Your task to perform on an android device: Clear the cart on amazon. Search for macbook pro 13 inch on amazon, select the first entry, and add it to the cart. Image 0: 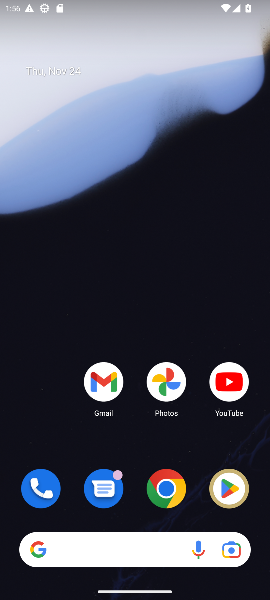
Step 0: click (161, 499)
Your task to perform on an android device: Clear the cart on amazon. Search for macbook pro 13 inch on amazon, select the first entry, and add it to the cart. Image 1: 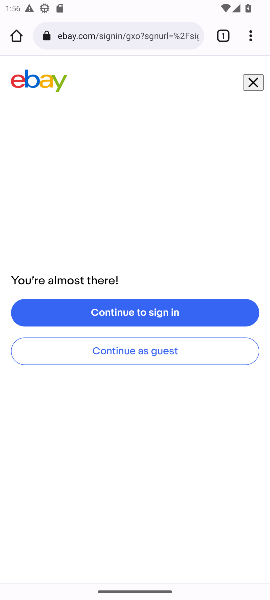
Step 1: click (119, 34)
Your task to perform on an android device: Clear the cart on amazon. Search for macbook pro 13 inch on amazon, select the first entry, and add it to the cart. Image 2: 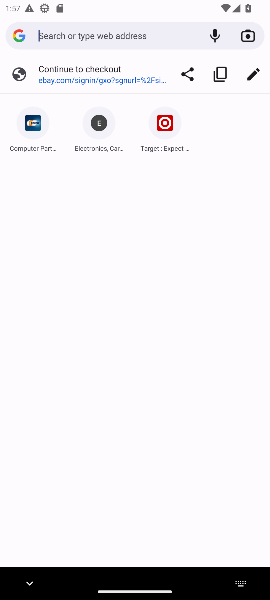
Step 2: type "amazon.com"
Your task to perform on an android device: Clear the cart on amazon. Search for macbook pro 13 inch on amazon, select the first entry, and add it to the cart. Image 3: 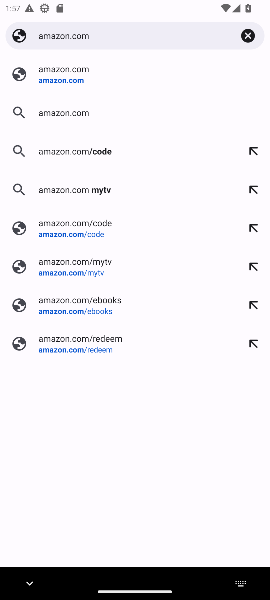
Step 3: click (61, 81)
Your task to perform on an android device: Clear the cart on amazon. Search for macbook pro 13 inch on amazon, select the first entry, and add it to the cart. Image 4: 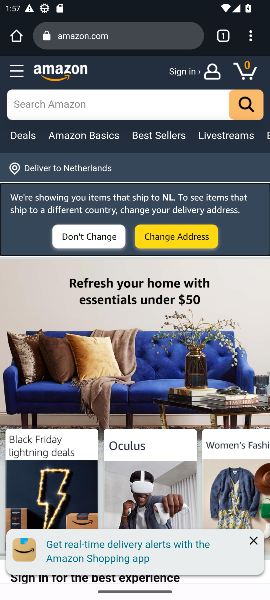
Step 4: click (247, 71)
Your task to perform on an android device: Clear the cart on amazon. Search for macbook pro 13 inch on amazon, select the first entry, and add it to the cart. Image 5: 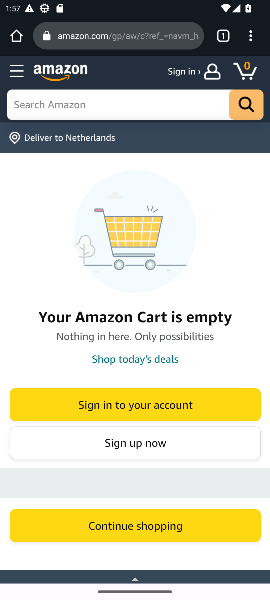
Step 5: click (120, 103)
Your task to perform on an android device: Clear the cart on amazon. Search for macbook pro 13 inch on amazon, select the first entry, and add it to the cart. Image 6: 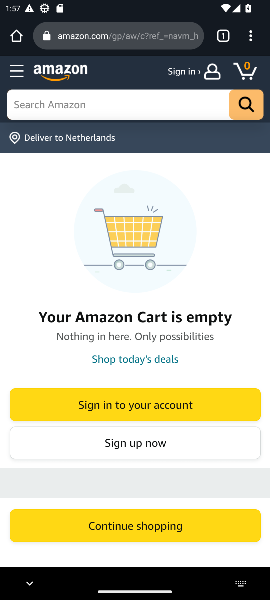
Step 6: type "macbook pro 13 inch"
Your task to perform on an android device: Clear the cart on amazon. Search for macbook pro 13 inch on amazon, select the first entry, and add it to the cart. Image 7: 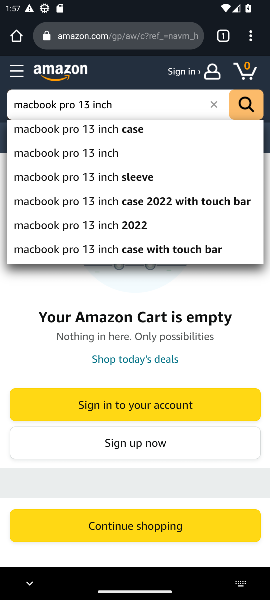
Step 7: click (81, 161)
Your task to perform on an android device: Clear the cart on amazon. Search for macbook pro 13 inch on amazon, select the first entry, and add it to the cart. Image 8: 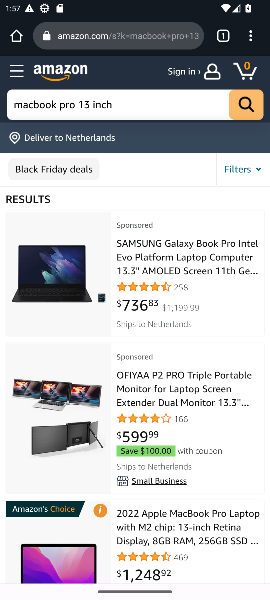
Step 8: task complete